Your task to perform on an android device: toggle show notifications on the lock screen Image 0: 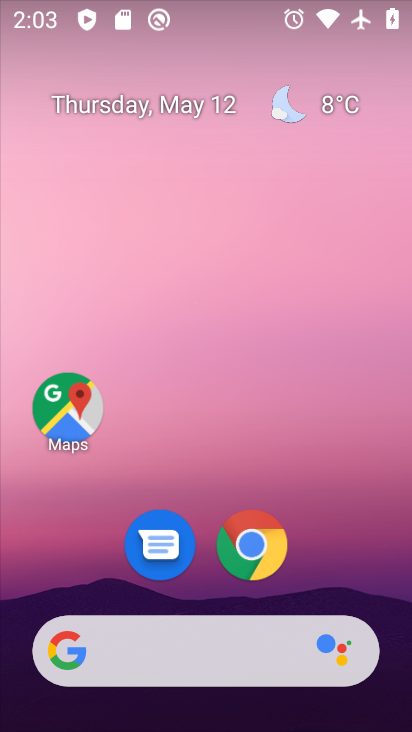
Step 0: drag from (393, 631) to (262, 119)
Your task to perform on an android device: toggle show notifications on the lock screen Image 1: 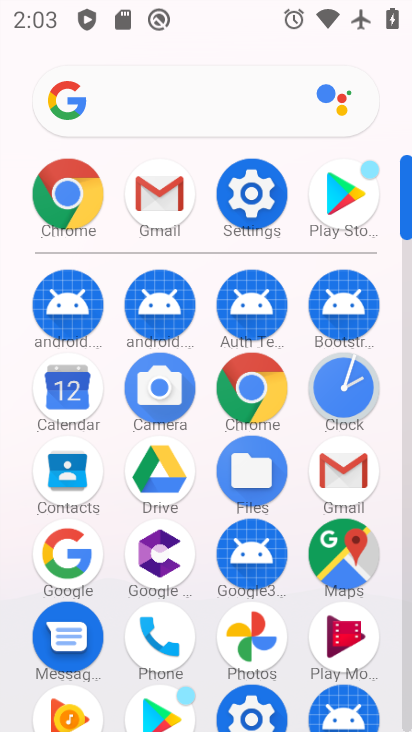
Step 1: click (407, 674)
Your task to perform on an android device: toggle show notifications on the lock screen Image 2: 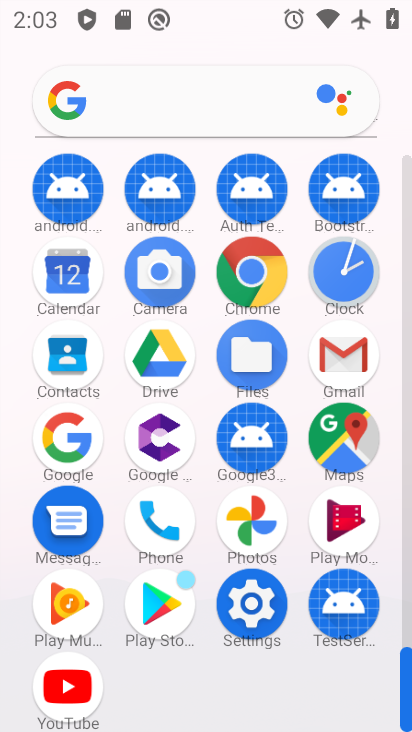
Step 2: click (255, 599)
Your task to perform on an android device: toggle show notifications on the lock screen Image 3: 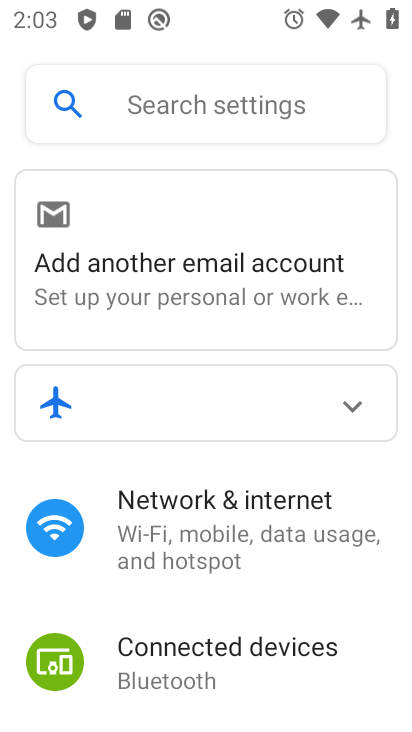
Step 3: drag from (378, 680) to (265, 182)
Your task to perform on an android device: toggle show notifications on the lock screen Image 4: 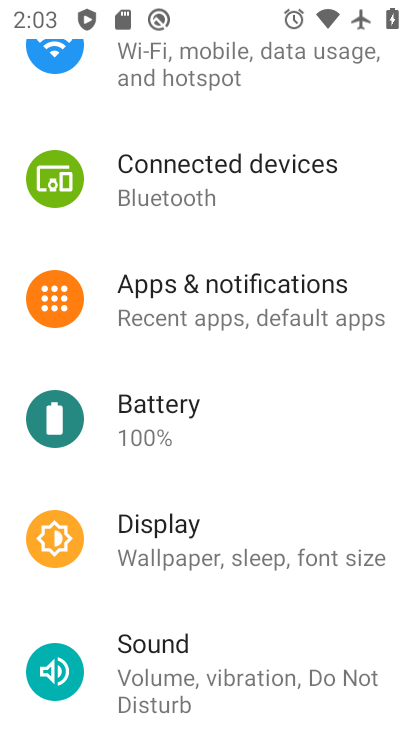
Step 4: click (173, 289)
Your task to perform on an android device: toggle show notifications on the lock screen Image 5: 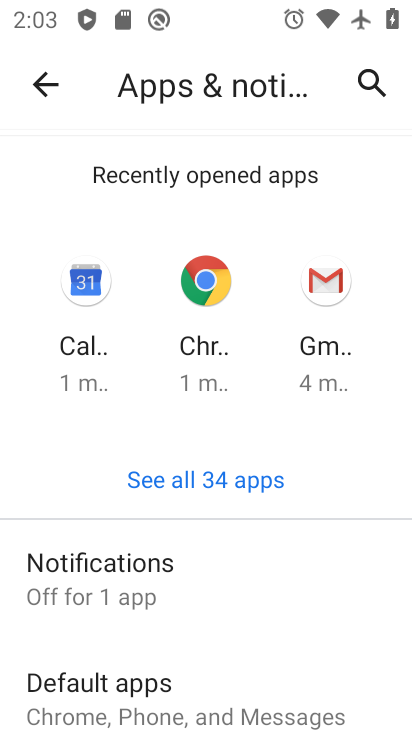
Step 5: click (126, 558)
Your task to perform on an android device: toggle show notifications on the lock screen Image 6: 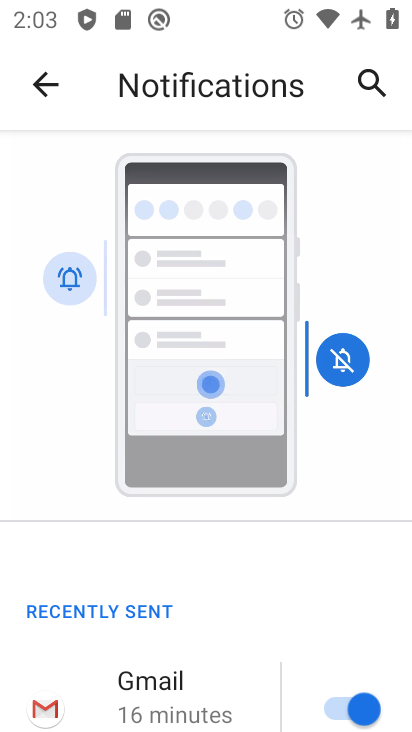
Step 6: drag from (289, 661) to (192, 153)
Your task to perform on an android device: toggle show notifications on the lock screen Image 7: 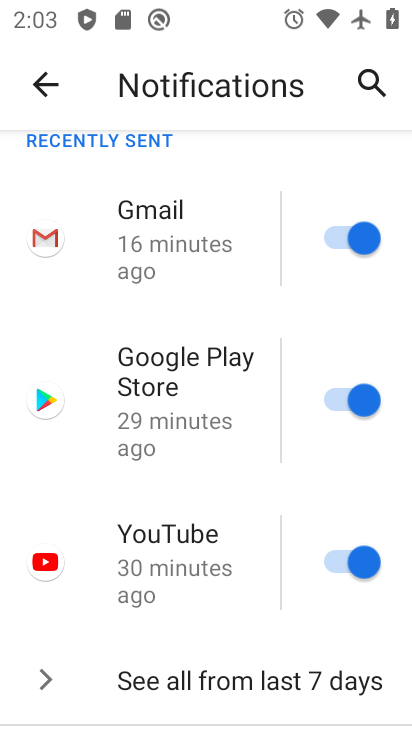
Step 7: drag from (281, 623) to (221, 154)
Your task to perform on an android device: toggle show notifications on the lock screen Image 8: 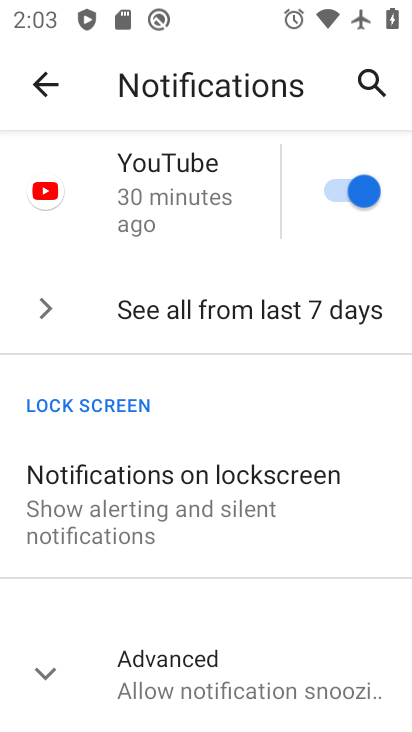
Step 8: click (202, 484)
Your task to perform on an android device: toggle show notifications on the lock screen Image 9: 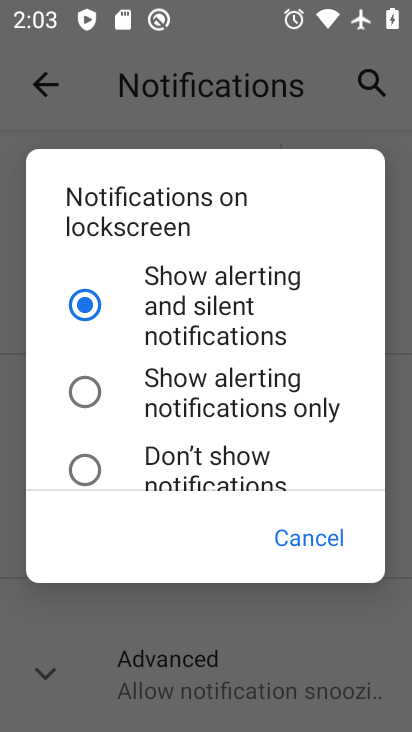
Step 9: click (93, 385)
Your task to perform on an android device: toggle show notifications on the lock screen Image 10: 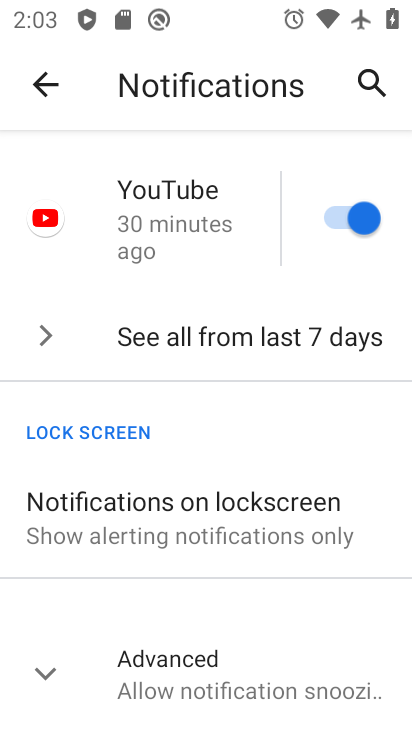
Step 10: task complete